Your task to perform on an android device: toggle airplane mode Image 0: 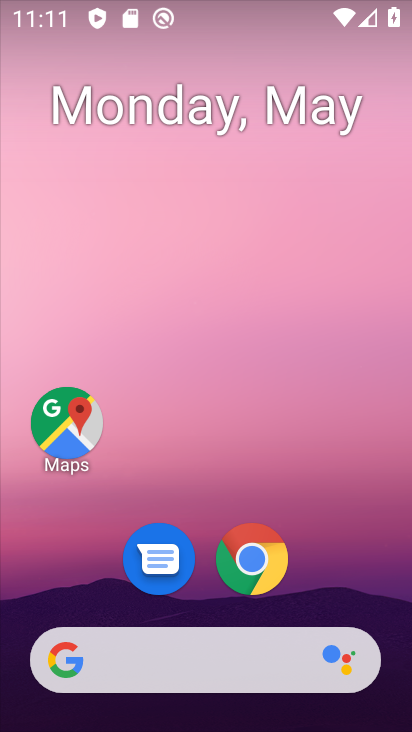
Step 0: drag from (406, 663) to (320, 96)
Your task to perform on an android device: toggle airplane mode Image 1: 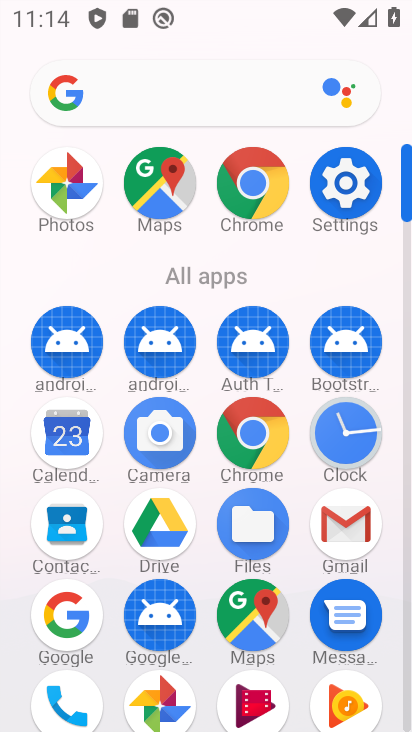
Step 1: drag from (295, 1) to (317, 520)
Your task to perform on an android device: toggle airplane mode Image 2: 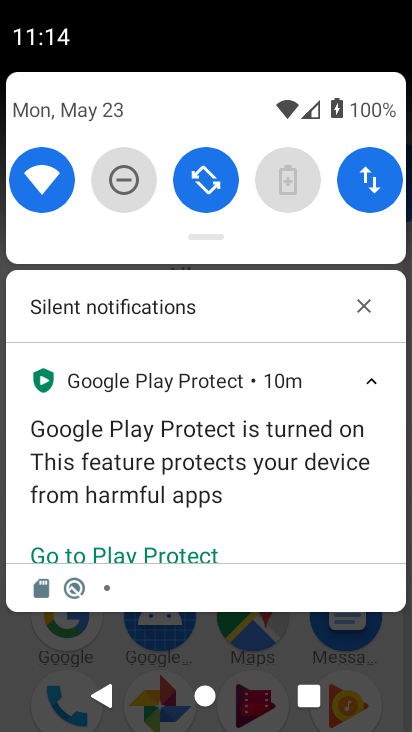
Step 2: drag from (243, 222) to (256, 658)
Your task to perform on an android device: toggle airplane mode Image 3: 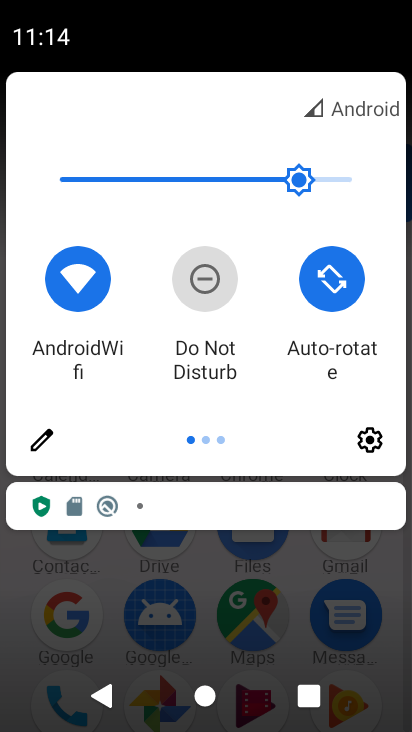
Step 3: drag from (340, 353) to (54, 293)
Your task to perform on an android device: toggle airplane mode Image 4: 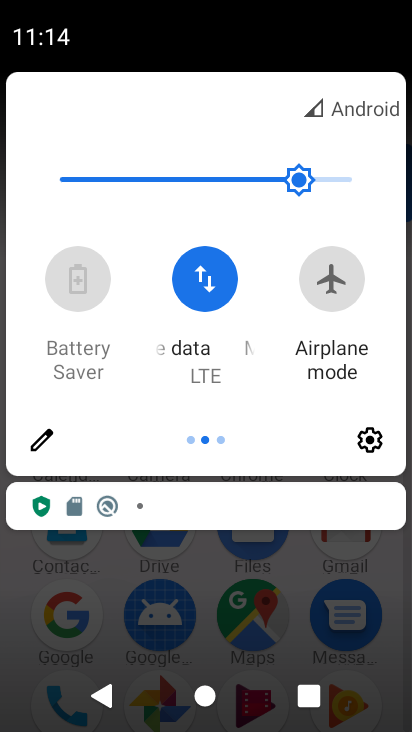
Step 4: click (336, 295)
Your task to perform on an android device: toggle airplane mode Image 5: 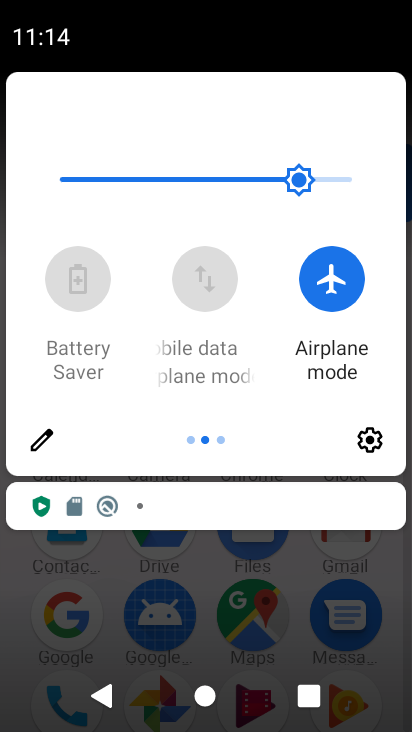
Step 5: task complete